Your task to perform on an android device: Go to notification settings Image 0: 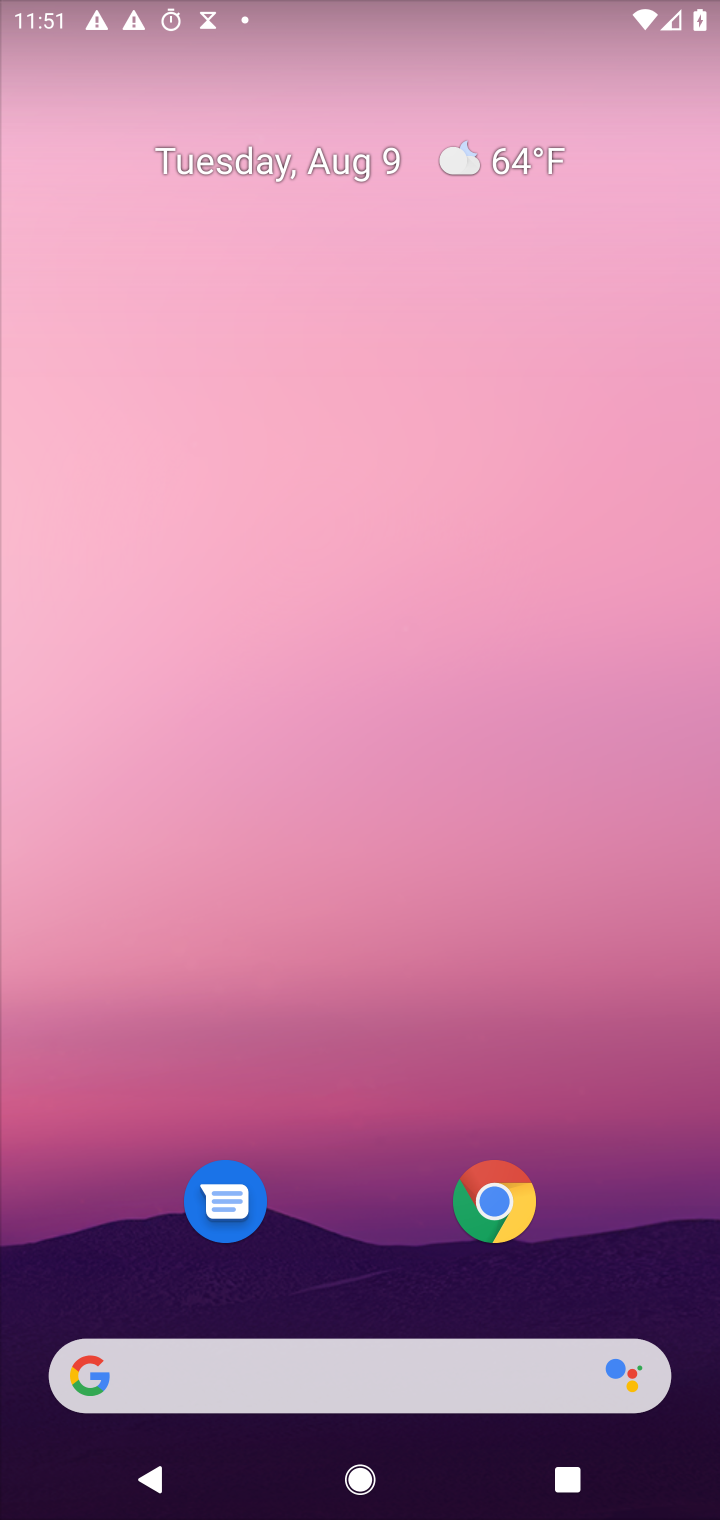
Step 0: press home button
Your task to perform on an android device: Go to notification settings Image 1: 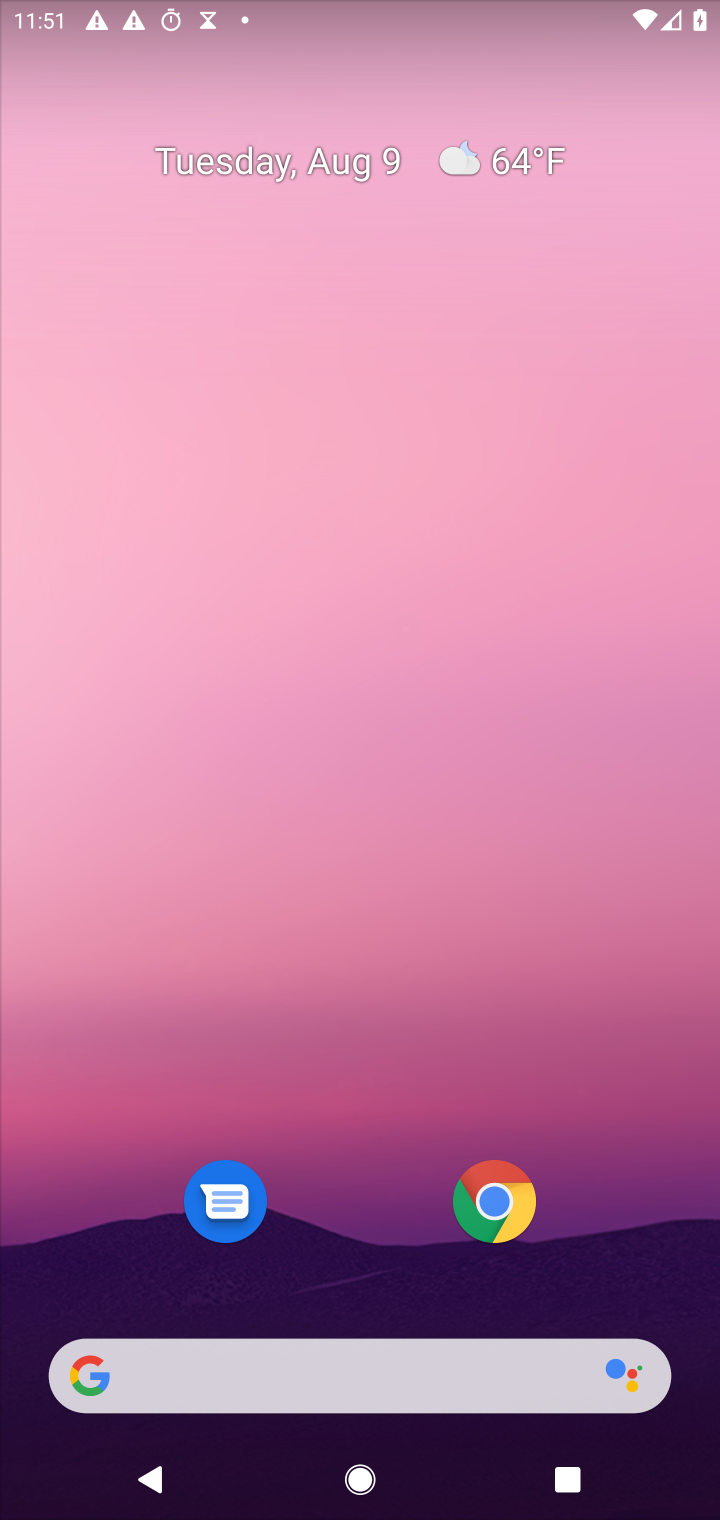
Step 1: drag from (383, 1251) to (718, 37)
Your task to perform on an android device: Go to notification settings Image 2: 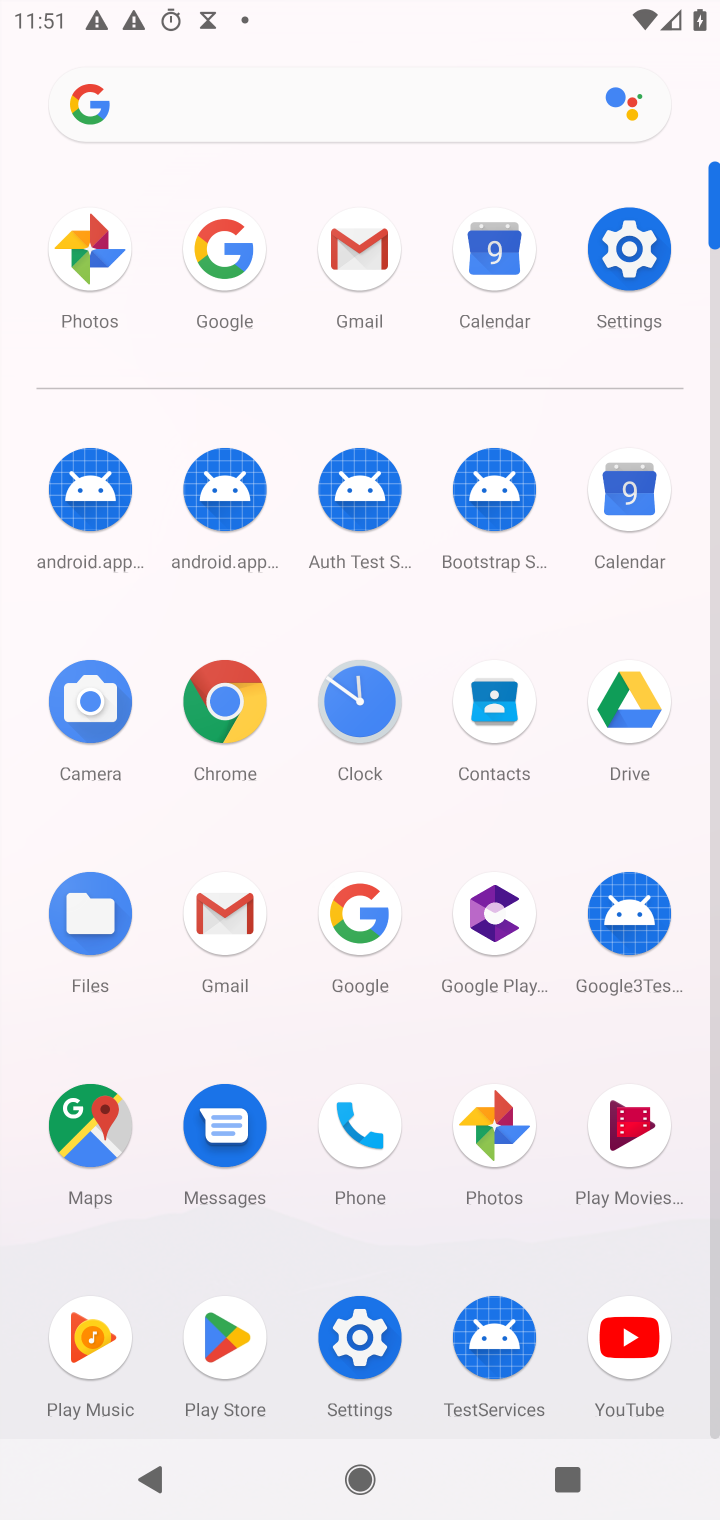
Step 2: click (632, 255)
Your task to perform on an android device: Go to notification settings Image 3: 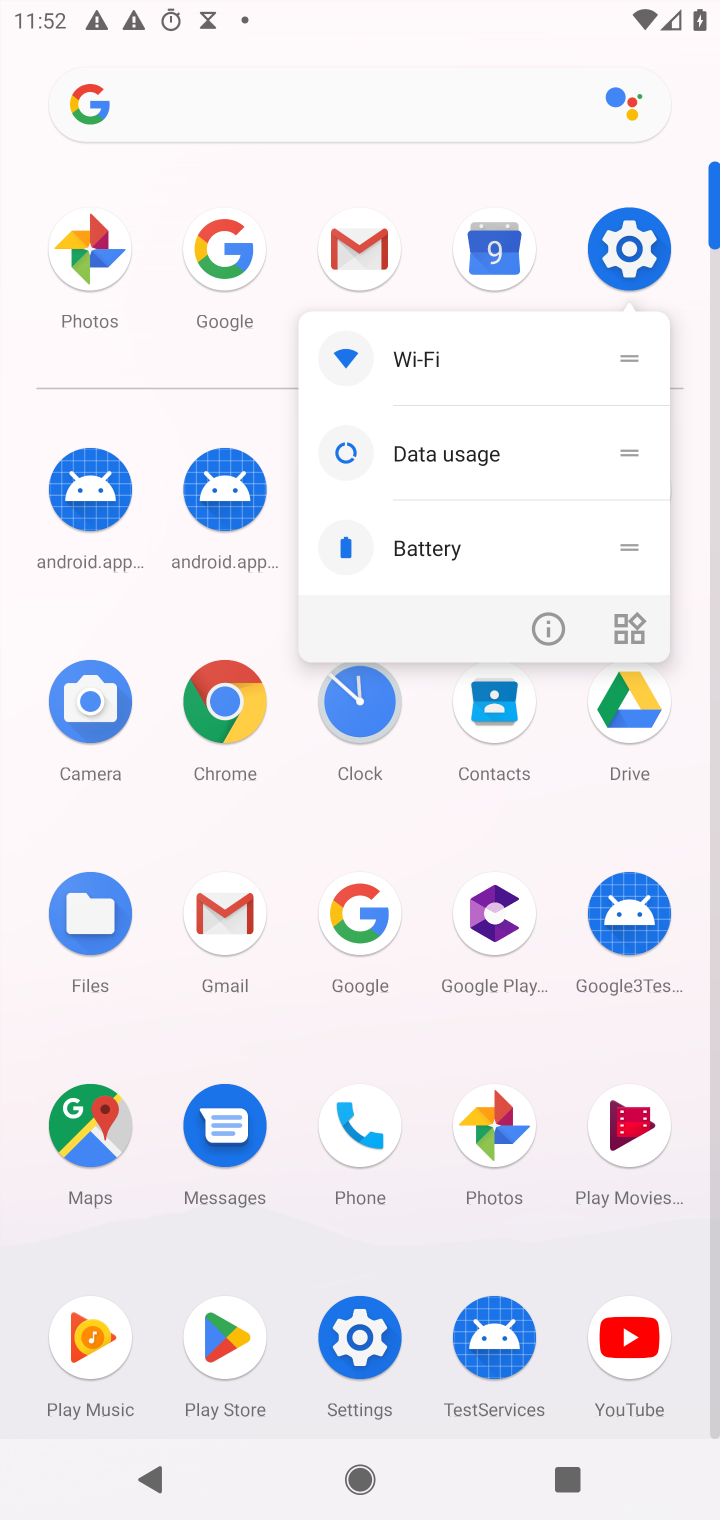
Step 3: click (629, 247)
Your task to perform on an android device: Go to notification settings Image 4: 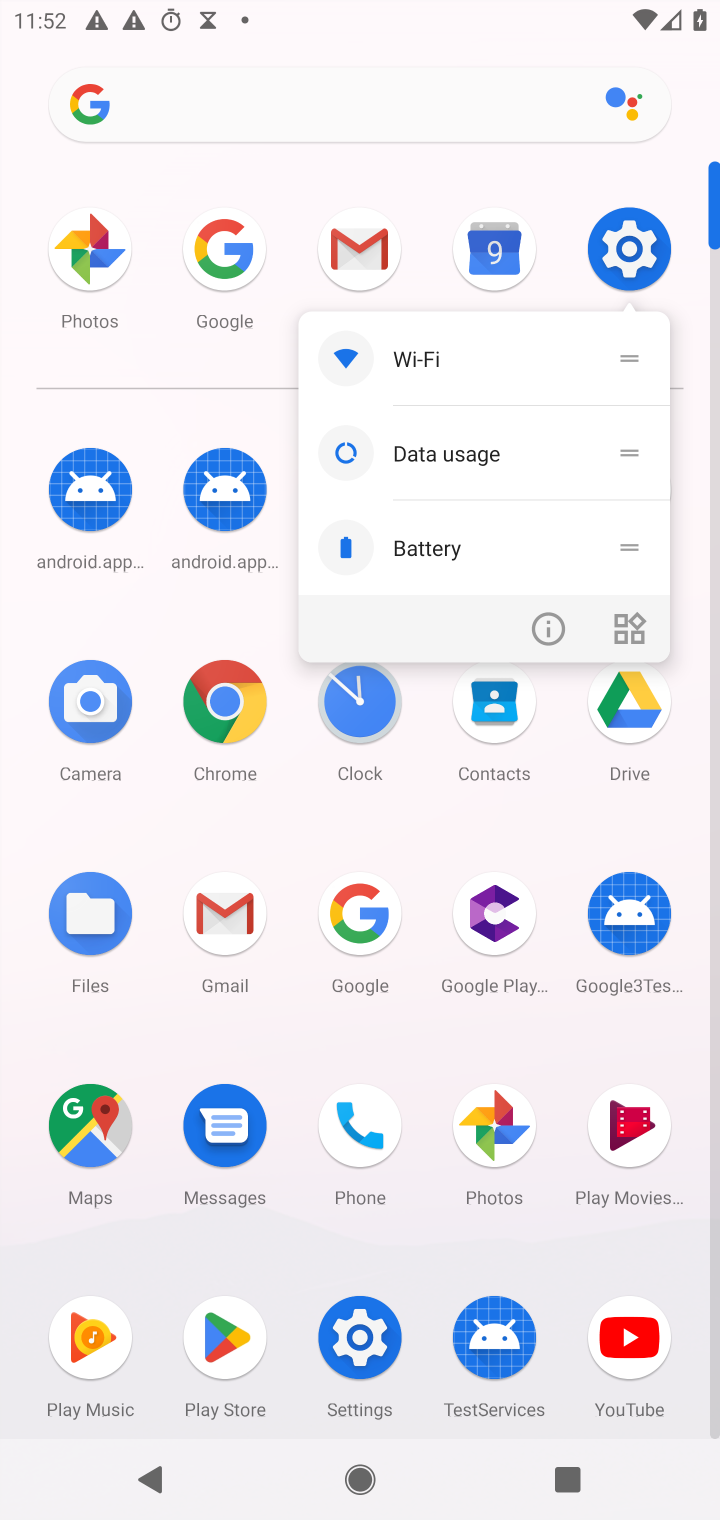
Step 4: click (637, 249)
Your task to perform on an android device: Go to notification settings Image 5: 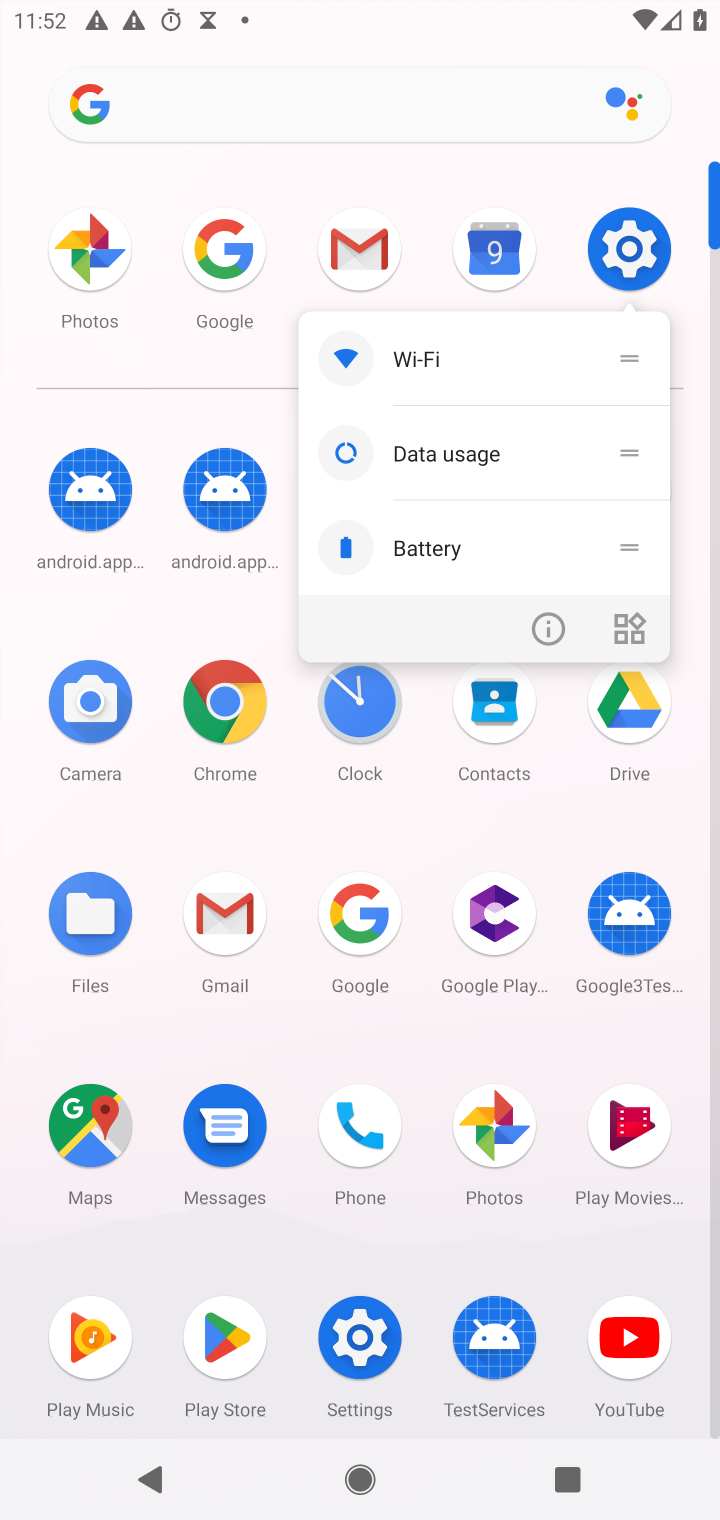
Step 5: click (624, 254)
Your task to perform on an android device: Go to notification settings Image 6: 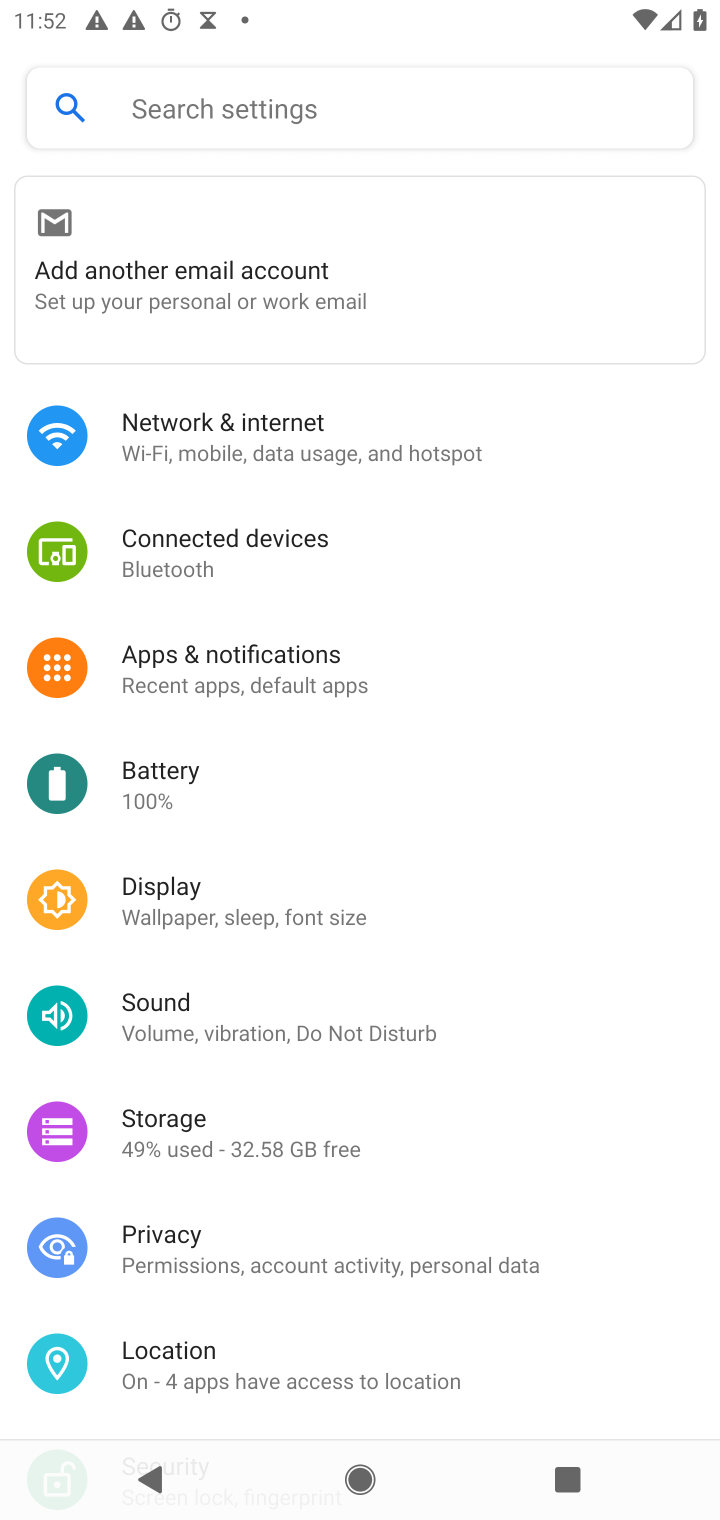
Step 6: click (231, 668)
Your task to perform on an android device: Go to notification settings Image 7: 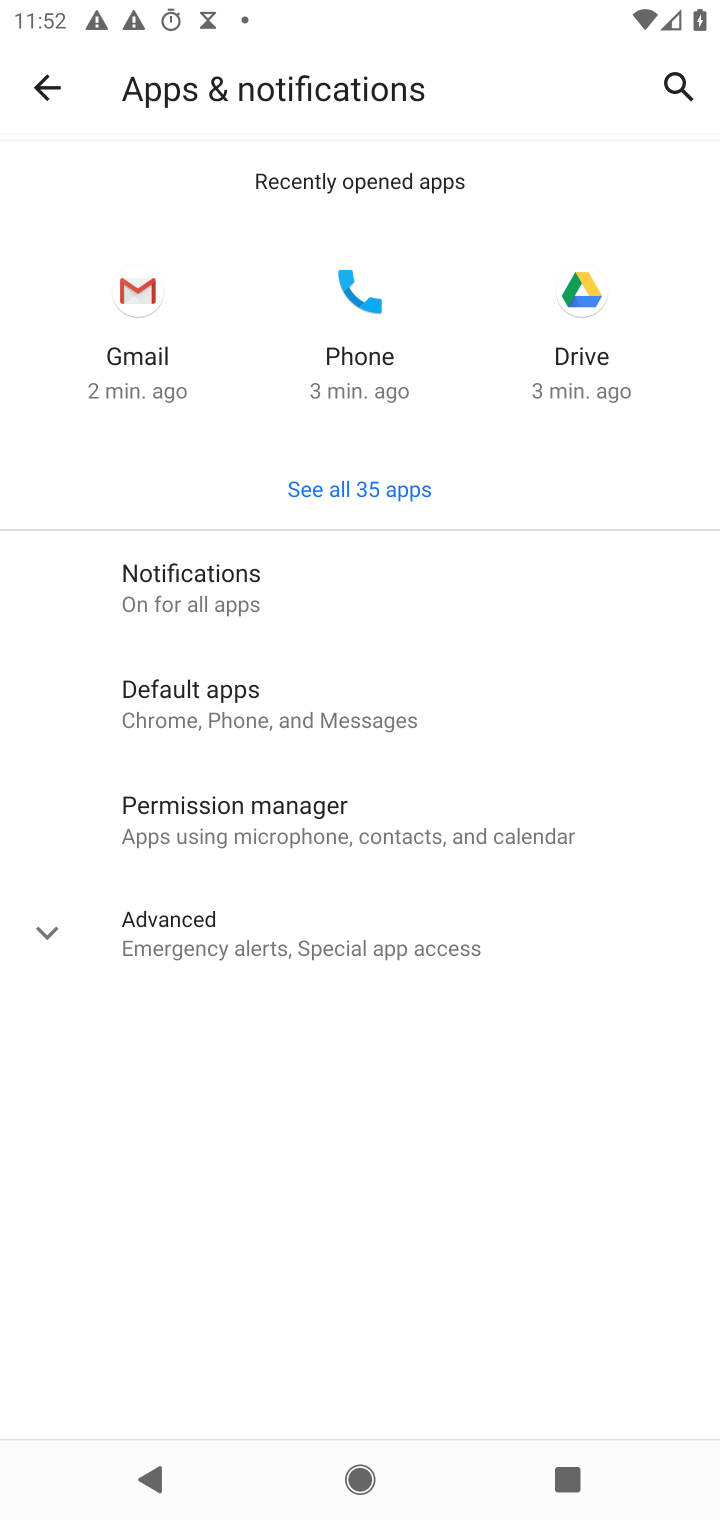
Step 7: click (181, 586)
Your task to perform on an android device: Go to notification settings Image 8: 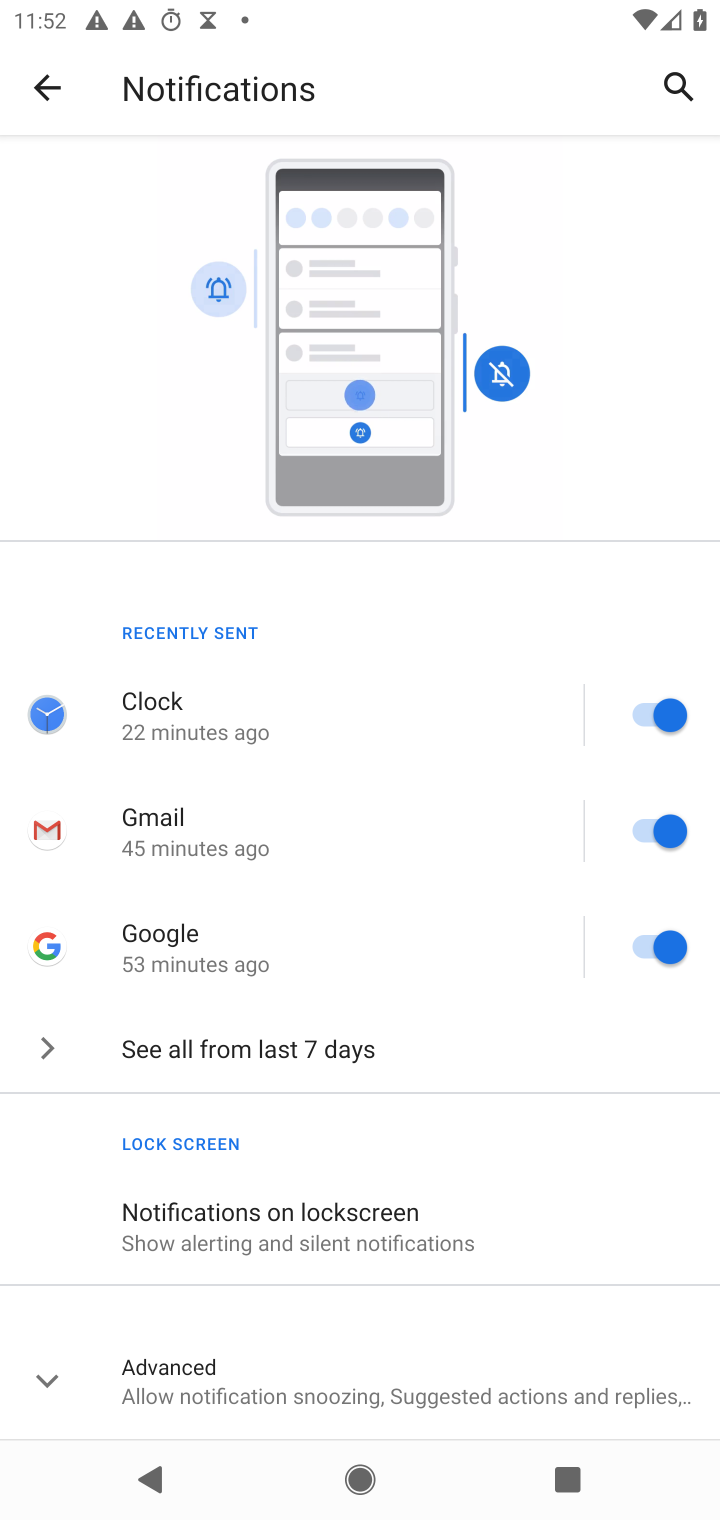
Step 8: click (203, 281)
Your task to perform on an android device: Go to notification settings Image 9: 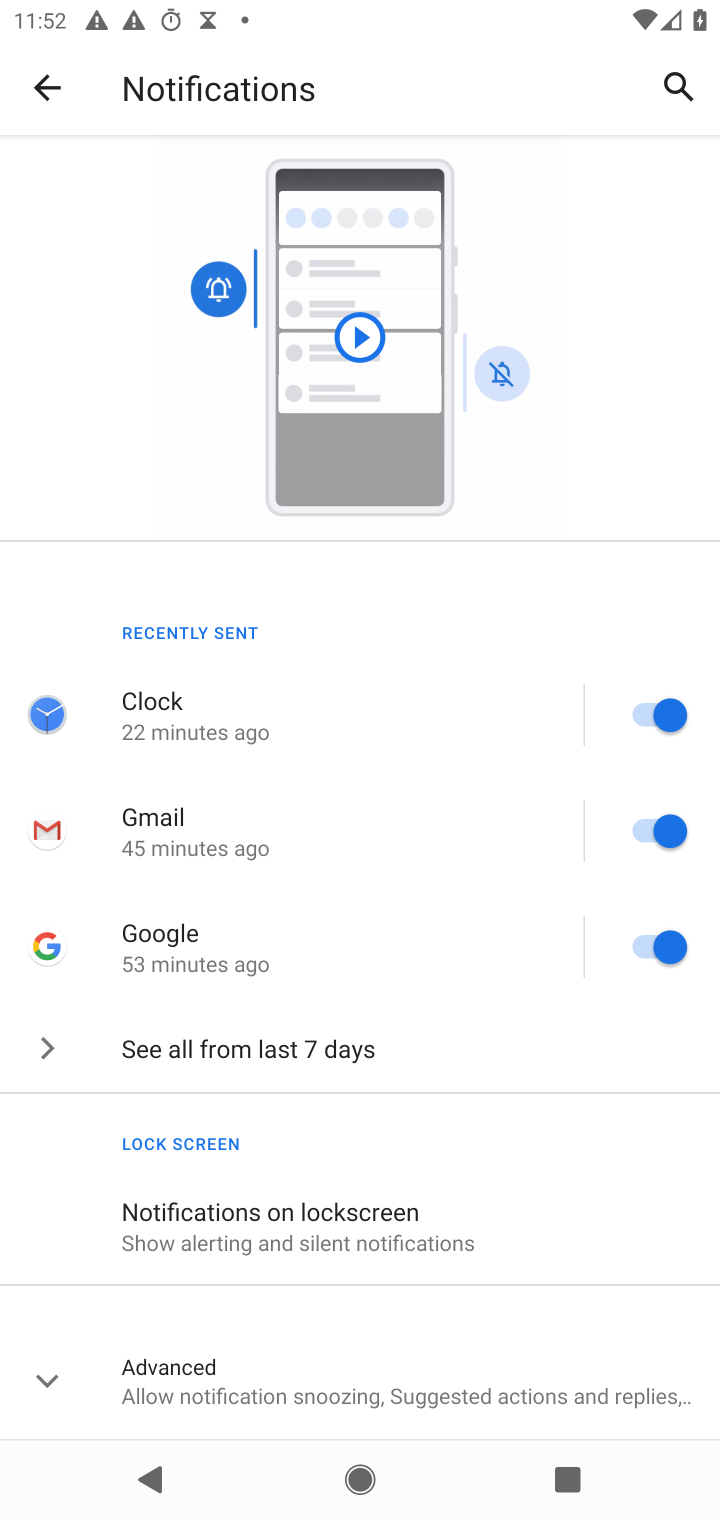
Step 9: task complete